Your task to perform on an android device: Do I have any events tomorrow? Image 0: 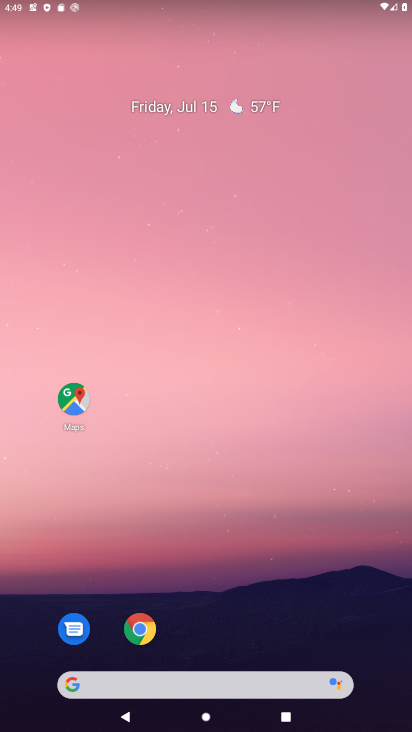
Step 0: press home button
Your task to perform on an android device: Do I have any events tomorrow? Image 1: 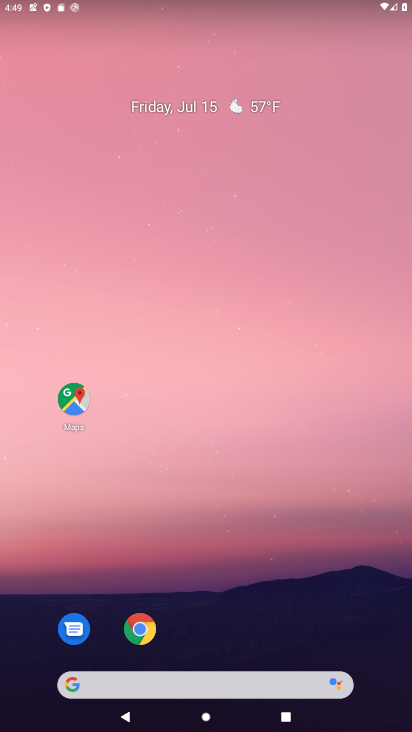
Step 1: drag from (243, 638) to (301, 0)
Your task to perform on an android device: Do I have any events tomorrow? Image 2: 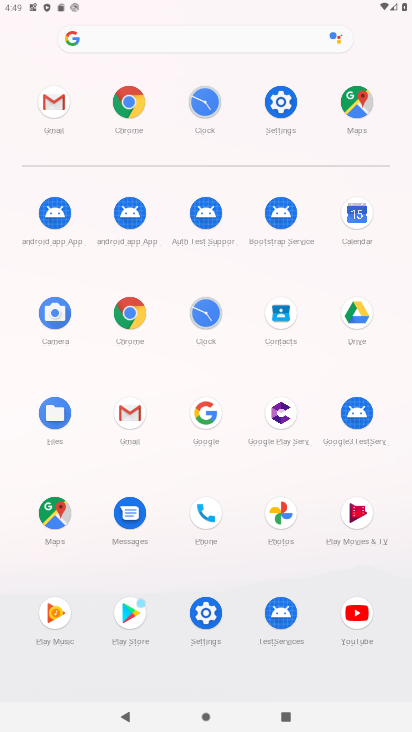
Step 2: click (357, 211)
Your task to perform on an android device: Do I have any events tomorrow? Image 3: 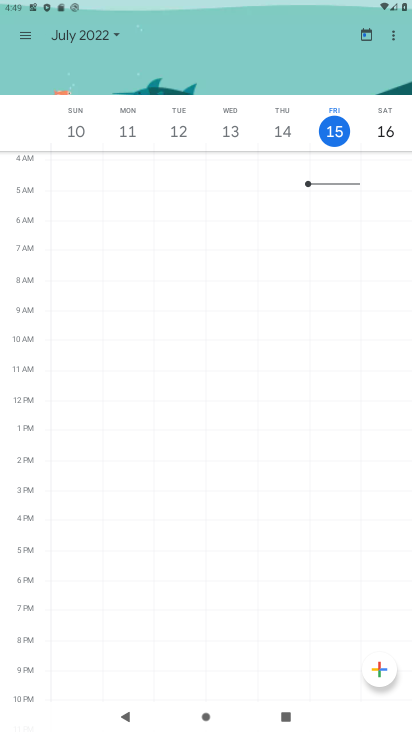
Step 3: click (21, 41)
Your task to perform on an android device: Do I have any events tomorrow? Image 4: 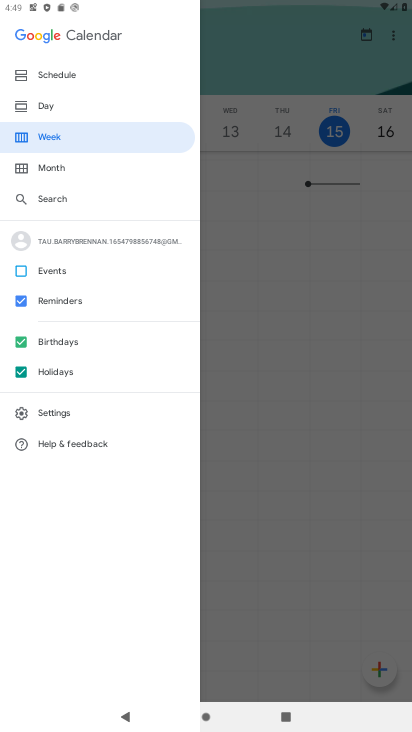
Step 4: click (61, 68)
Your task to perform on an android device: Do I have any events tomorrow? Image 5: 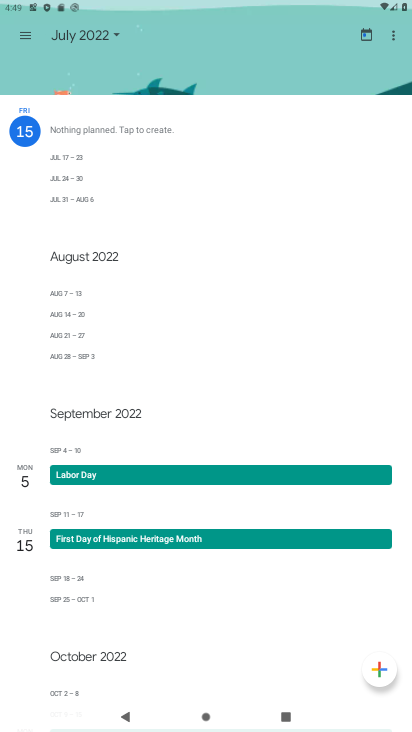
Step 5: task complete